Your task to perform on an android device: What's the weather today? Image 0: 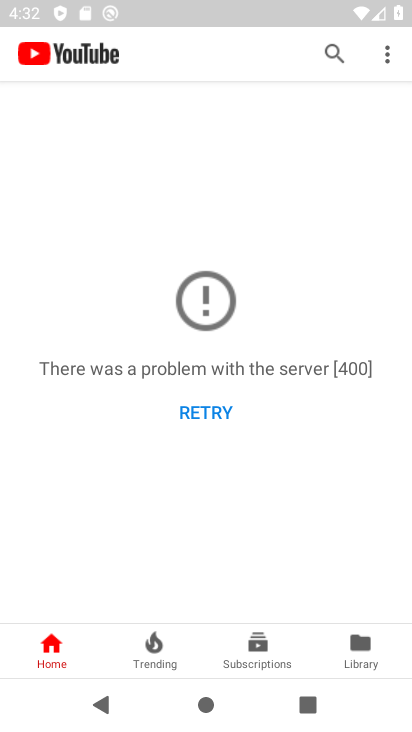
Step 0: press home button
Your task to perform on an android device: What's the weather today? Image 1: 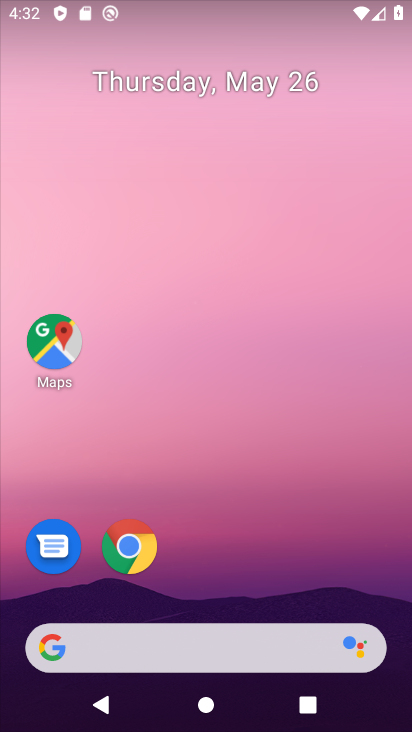
Step 1: click (136, 564)
Your task to perform on an android device: What's the weather today? Image 2: 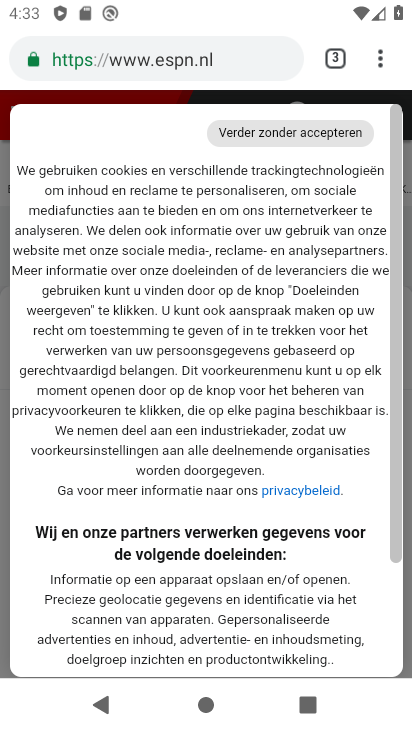
Step 2: click (181, 64)
Your task to perform on an android device: What's the weather today? Image 3: 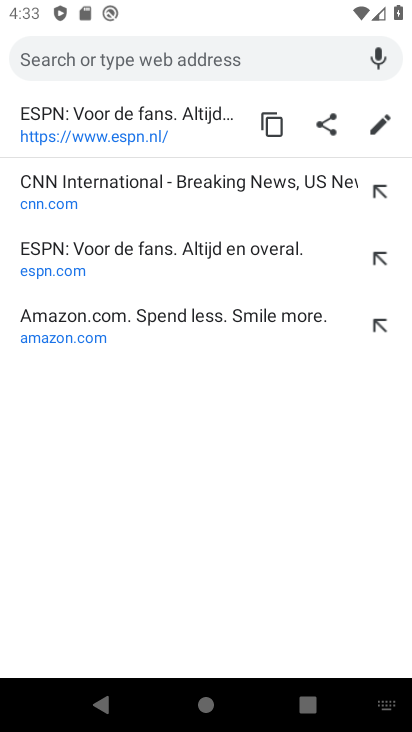
Step 3: type "What's the weather today?"
Your task to perform on an android device: What's the weather today? Image 4: 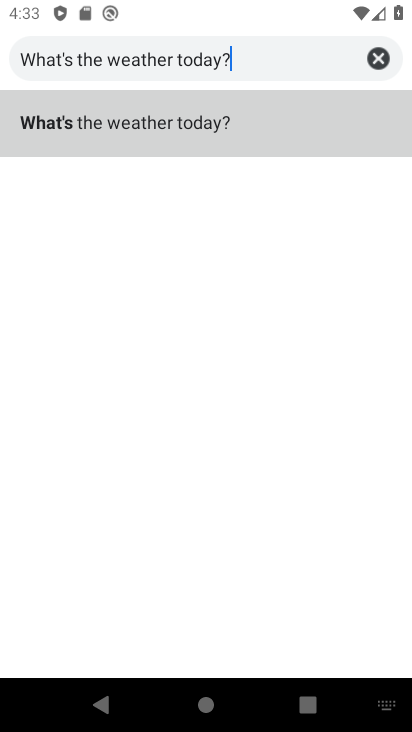
Step 4: click (138, 126)
Your task to perform on an android device: What's the weather today? Image 5: 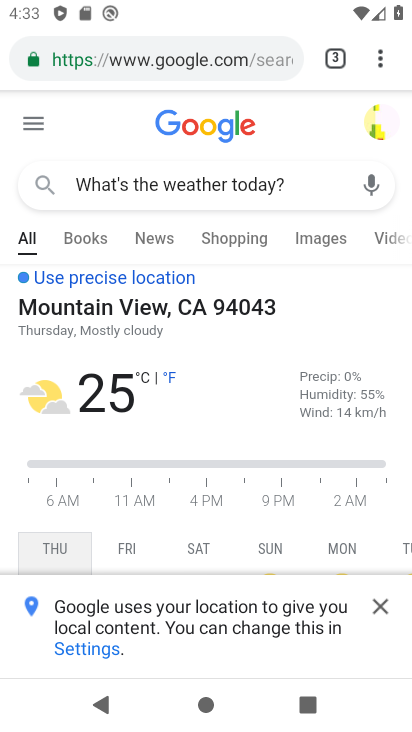
Step 5: click (383, 608)
Your task to perform on an android device: What's the weather today? Image 6: 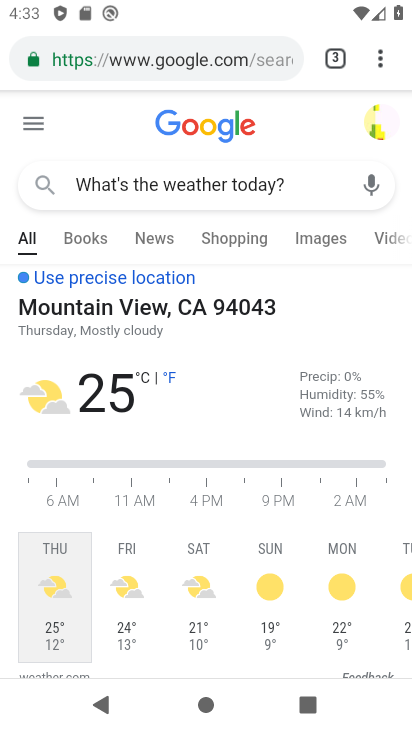
Step 6: task complete